Your task to perform on an android device: Clear the cart on amazon. Search for sony triple a on amazon, select the first entry, and add it to the cart. Image 0: 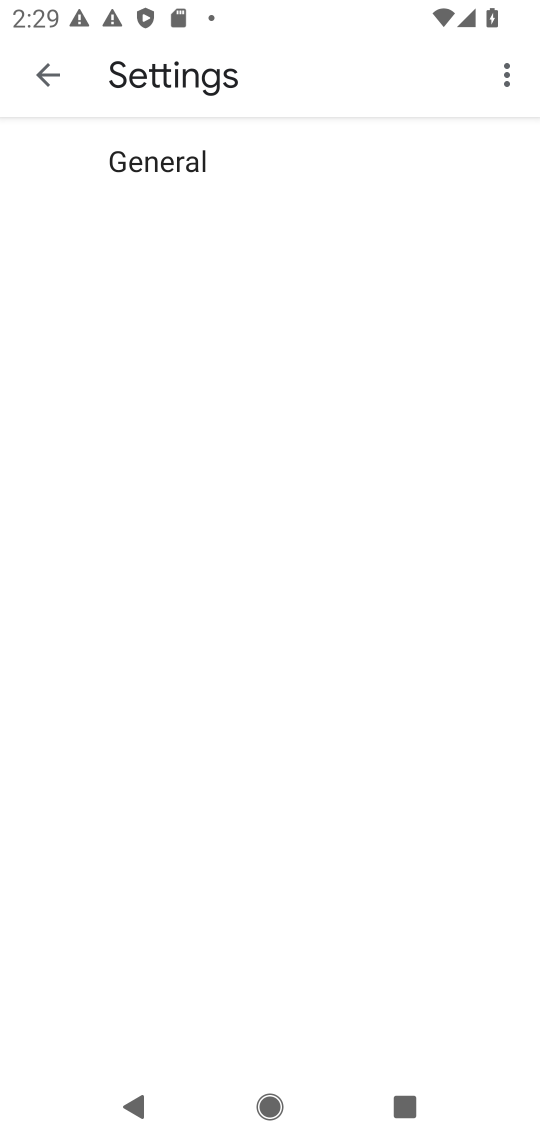
Step 0: press home button
Your task to perform on an android device: Clear the cart on amazon. Search for sony triple a on amazon, select the first entry, and add it to the cart. Image 1: 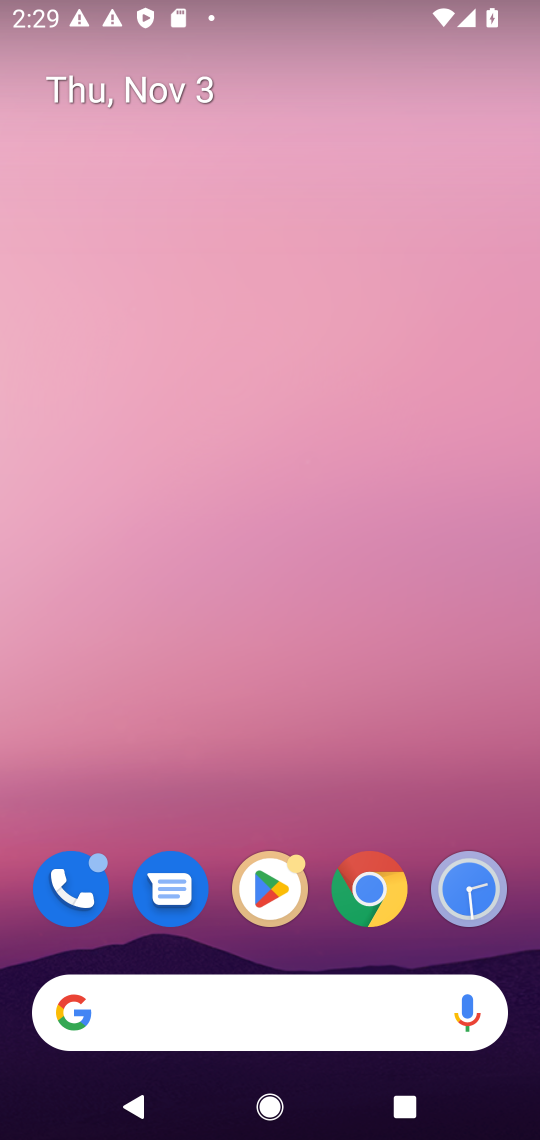
Step 1: click (354, 880)
Your task to perform on an android device: Clear the cart on amazon. Search for sony triple a on amazon, select the first entry, and add it to the cart. Image 2: 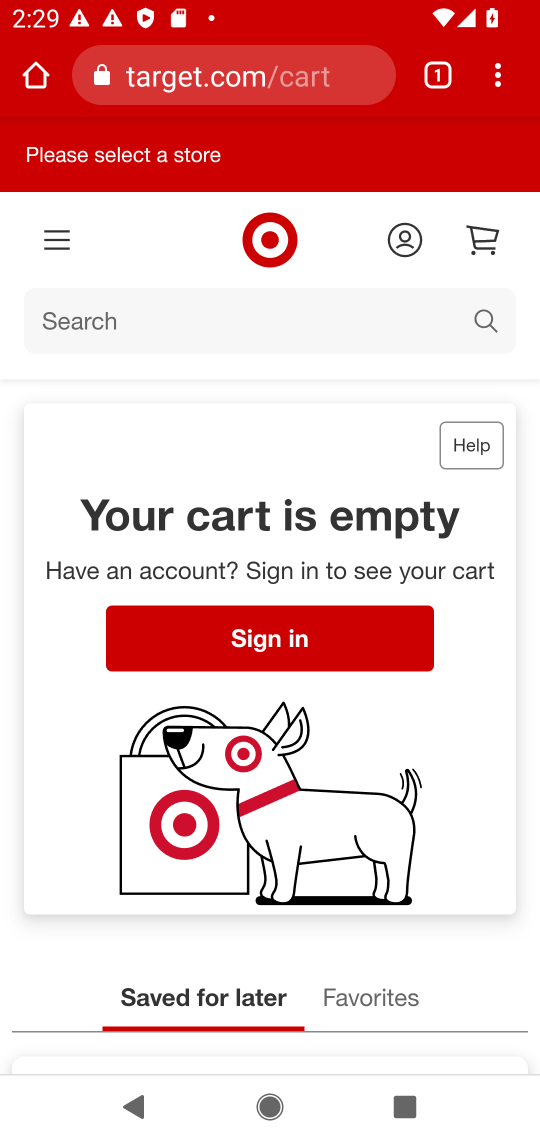
Step 2: click (436, 67)
Your task to perform on an android device: Clear the cart on amazon. Search for sony triple a on amazon, select the first entry, and add it to the cart. Image 3: 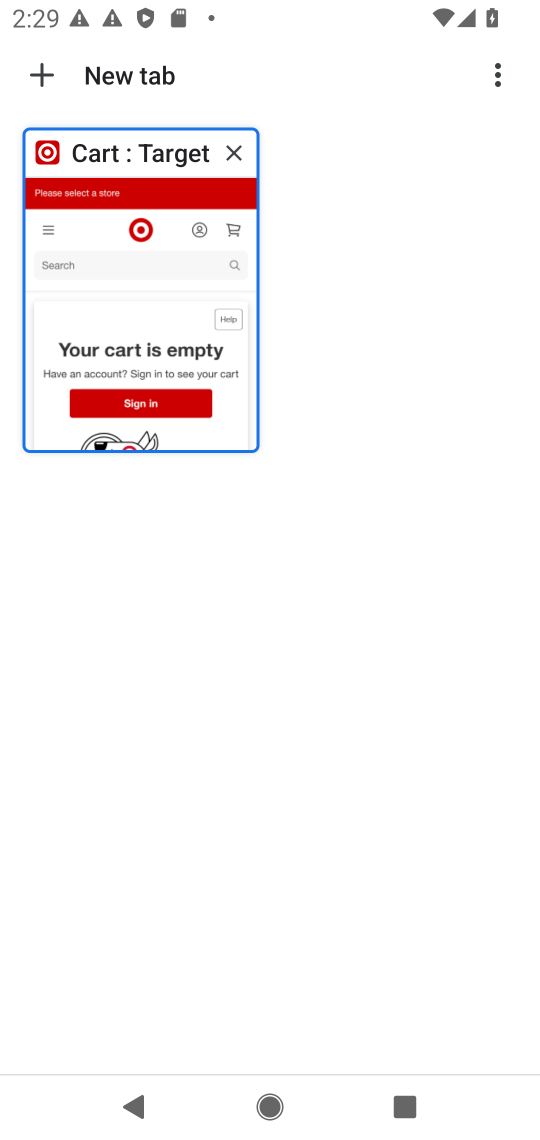
Step 3: click (38, 76)
Your task to perform on an android device: Clear the cart on amazon. Search for sony triple a on amazon, select the first entry, and add it to the cart. Image 4: 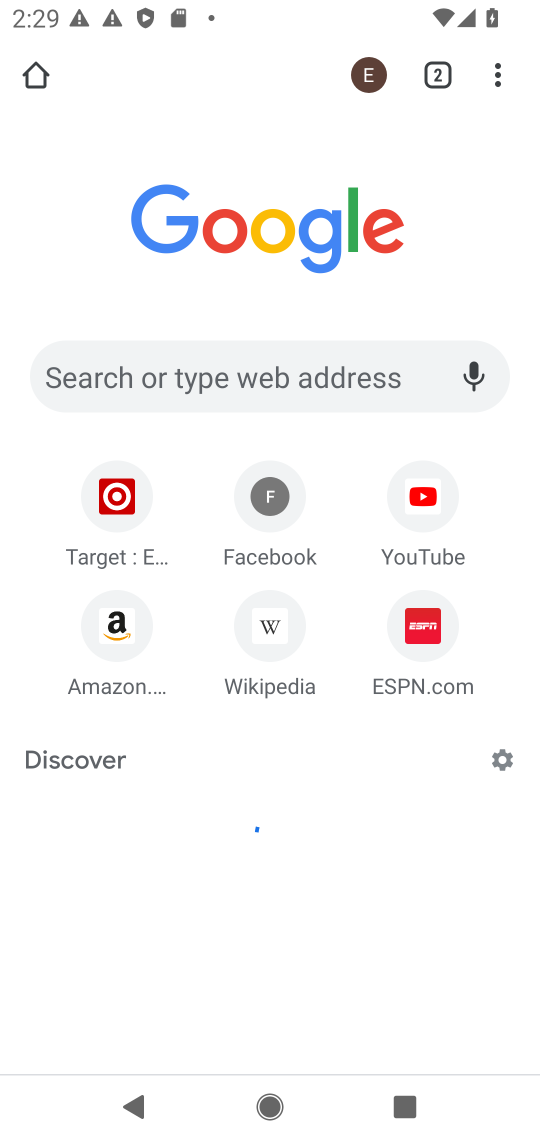
Step 4: click (227, 370)
Your task to perform on an android device: Clear the cart on amazon. Search for sony triple a on amazon, select the first entry, and add it to the cart. Image 5: 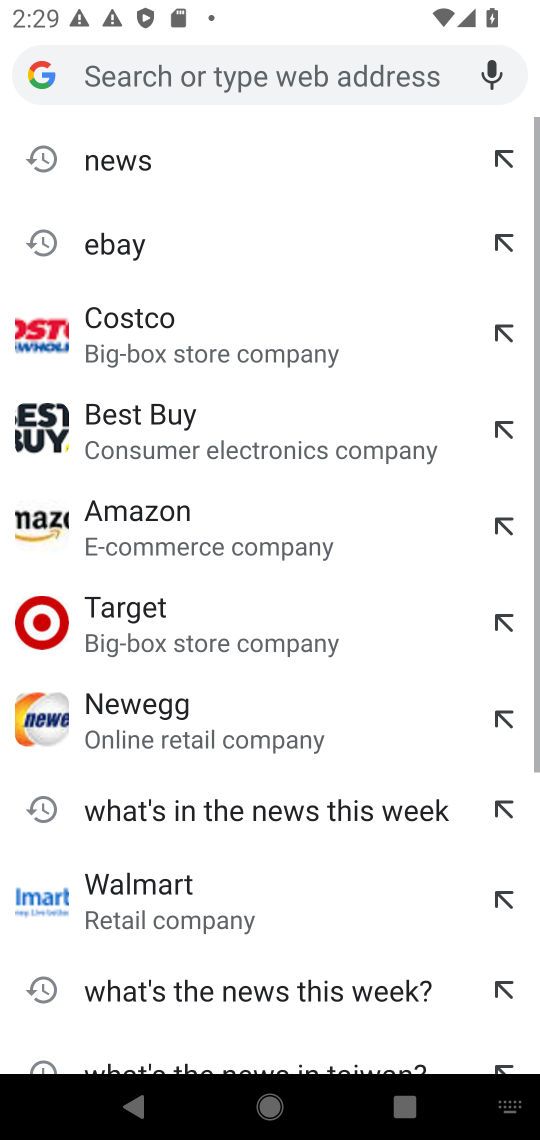
Step 5: type "amazon"
Your task to perform on an android device: Clear the cart on amazon. Search for sony triple a on amazon, select the first entry, and add it to the cart. Image 6: 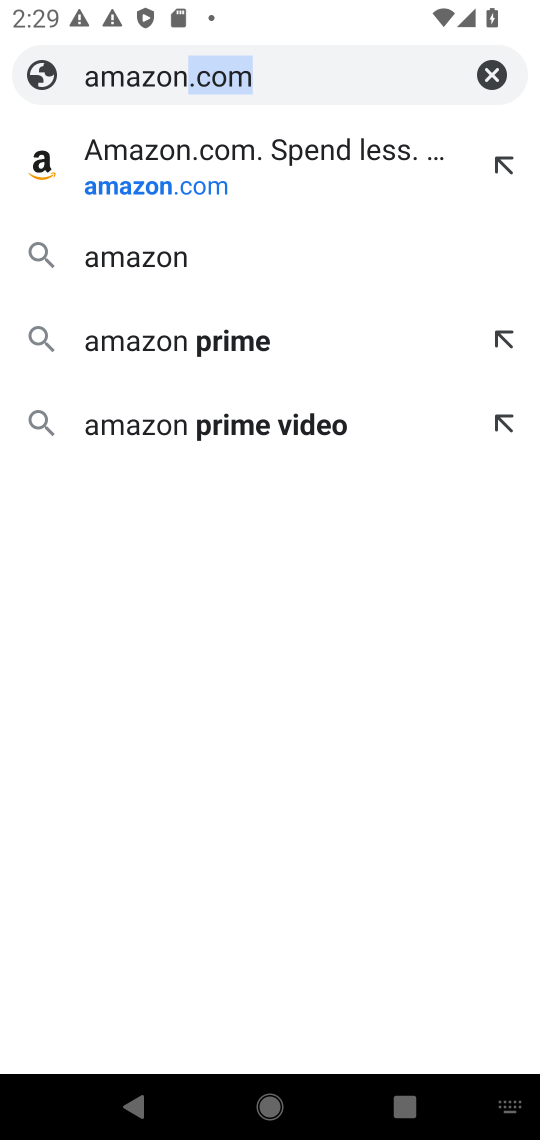
Step 6: click (355, 170)
Your task to perform on an android device: Clear the cart on amazon. Search for sony triple a on amazon, select the first entry, and add it to the cart. Image 7: 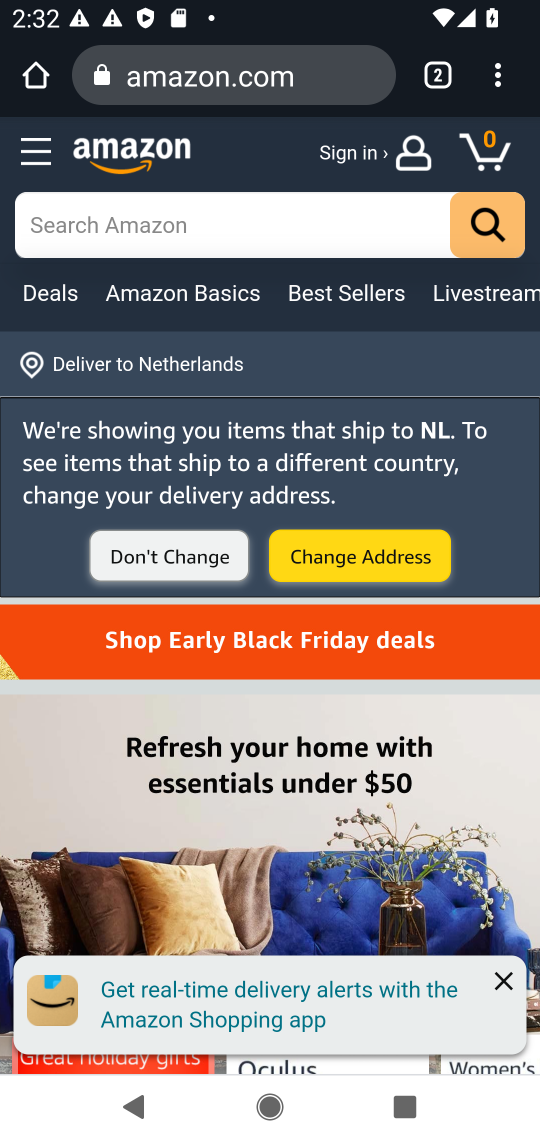
Step 7: click (493, 133)
Your task to perform on an android device: Clear the cart on amazon. Search for sony triple a on amazon, select the first entry, and add it to the cart. Image 8: 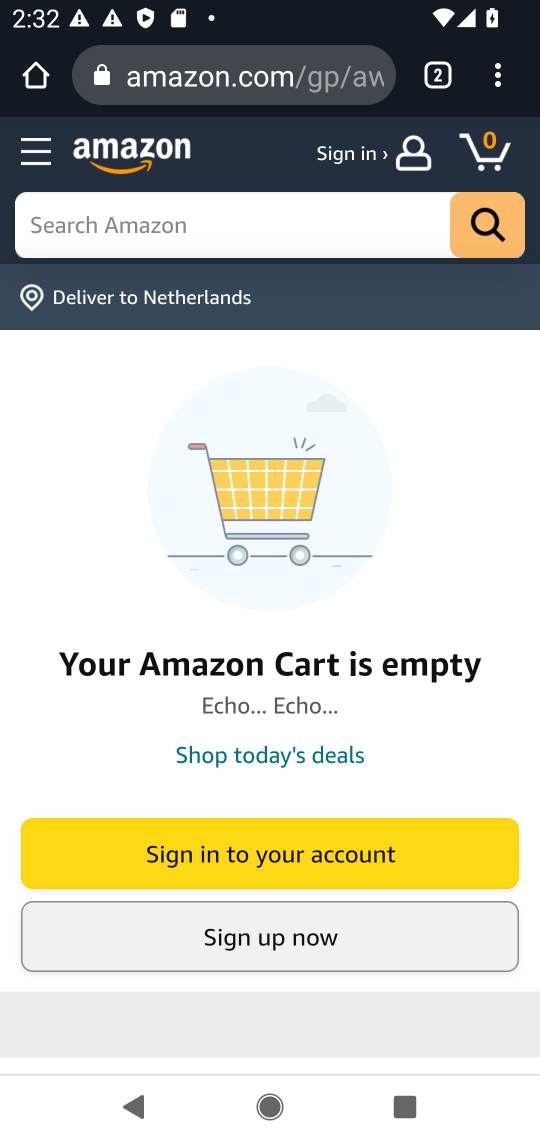
Step 8: click (493, 159)
Your task to perform on an android device: Clear the cart on amazon. Search for sony triple a on amazon, select the first entry, and add it to the cart. Image 9: 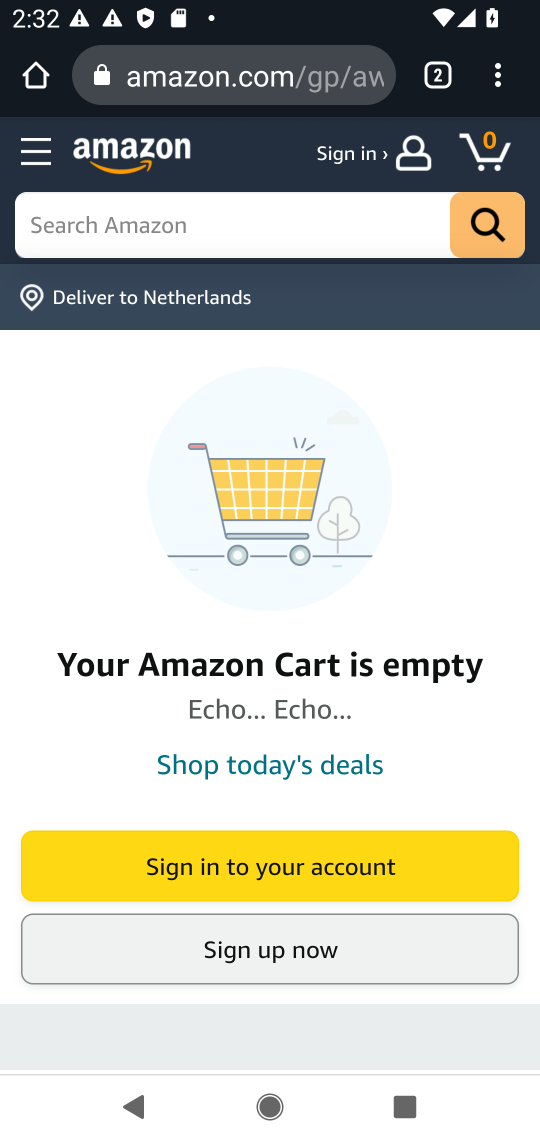
Step 9: click (499, 155)
Your task to perform on an android device: Clear the cart on amazon. Search for sony triple a on amazon, select the first entry, and add it to the cart. Image 10: 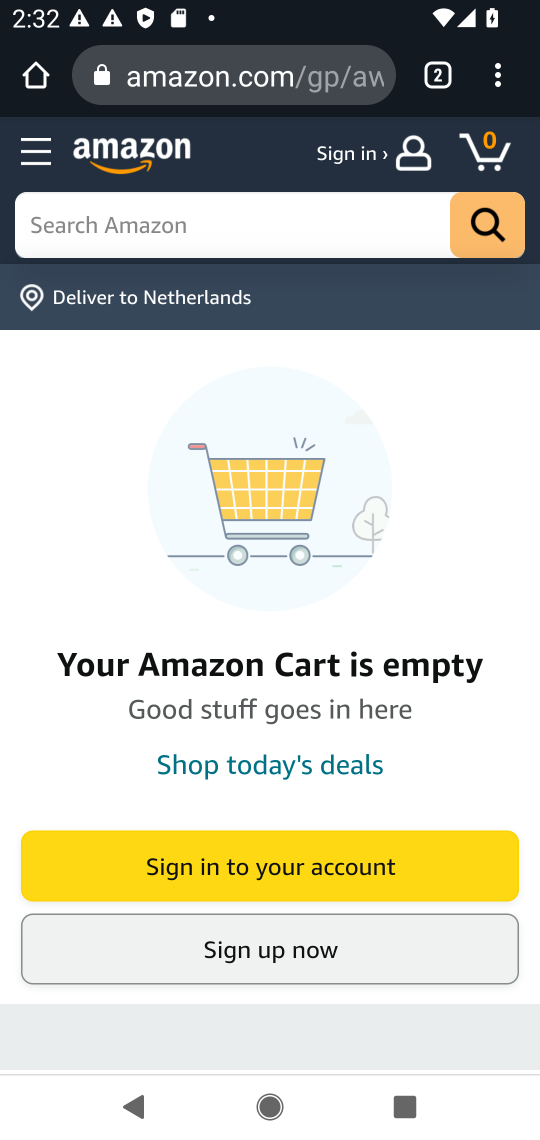
Step 10: click (260, 235)
Your task to perform on an android device: Clear the cart on amazon. Search for sony triple a on amazon, select the first entry, and add it to the cart. Image 11: 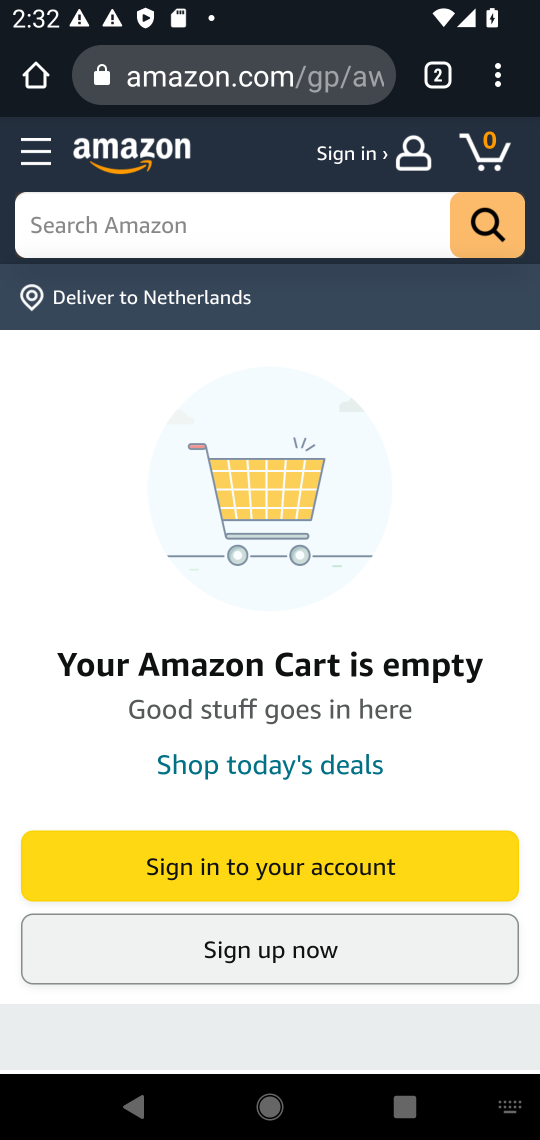
Step 11: click (167, 233)
Your task to perform on an android device: Clear the cart on amazon. Search for sony triple a on amazon, select the first entry, and add it to the cart. Image 12: 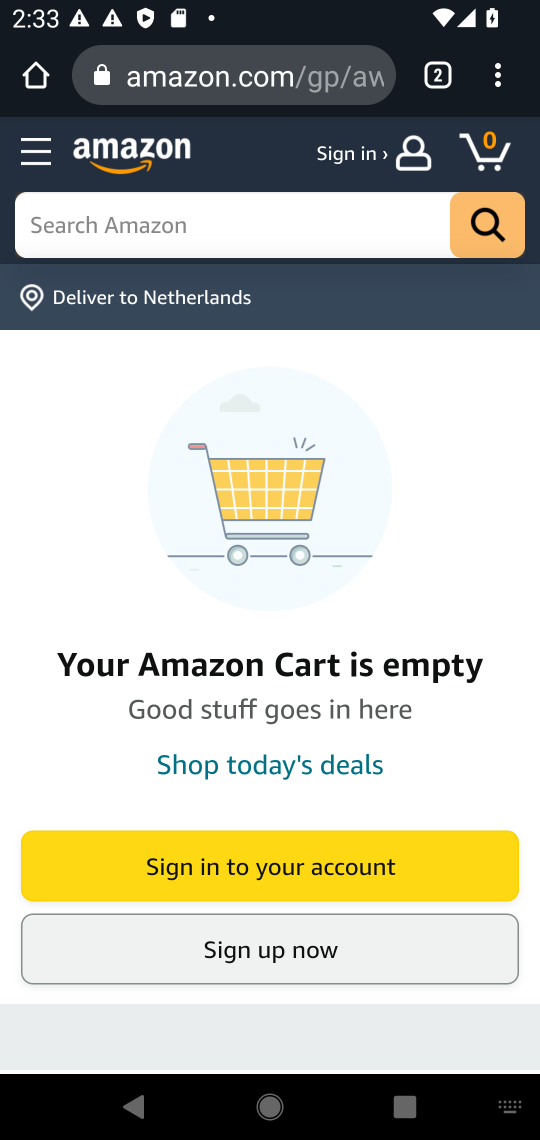
Step 12: type "ony triple "
Your task to perform on an android device: Clear the cart on amazon. Search for sony triple a on amazon, select the first entry, and add it to the cart. Image 13: 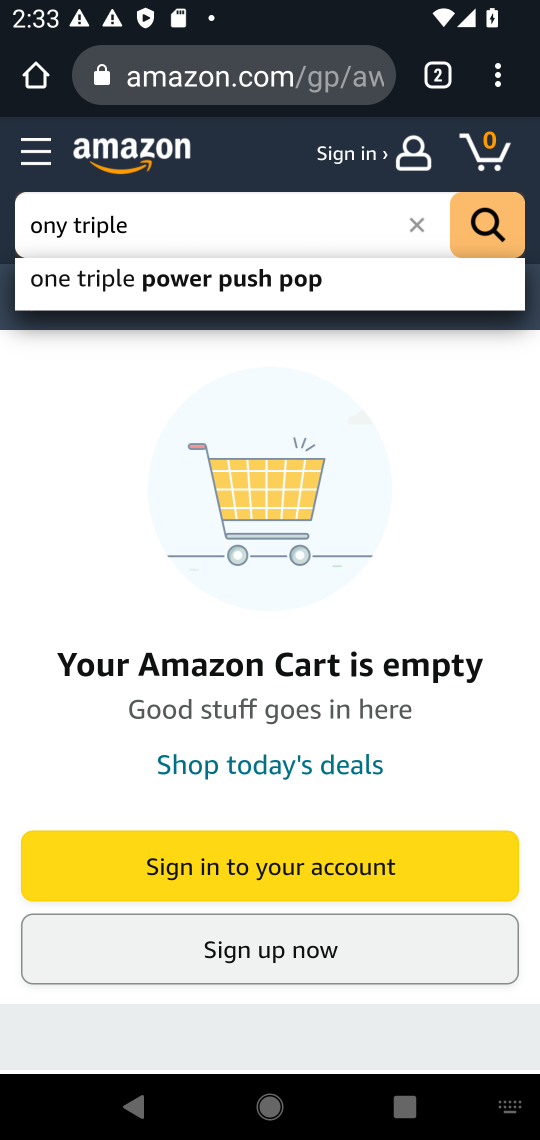
Step 13: click (237, 274)
Your task to perform on an android device: Clear the cart on amazon. Search for sony triple a on amazon, select the first entry, and add it to the cart. Image 14: 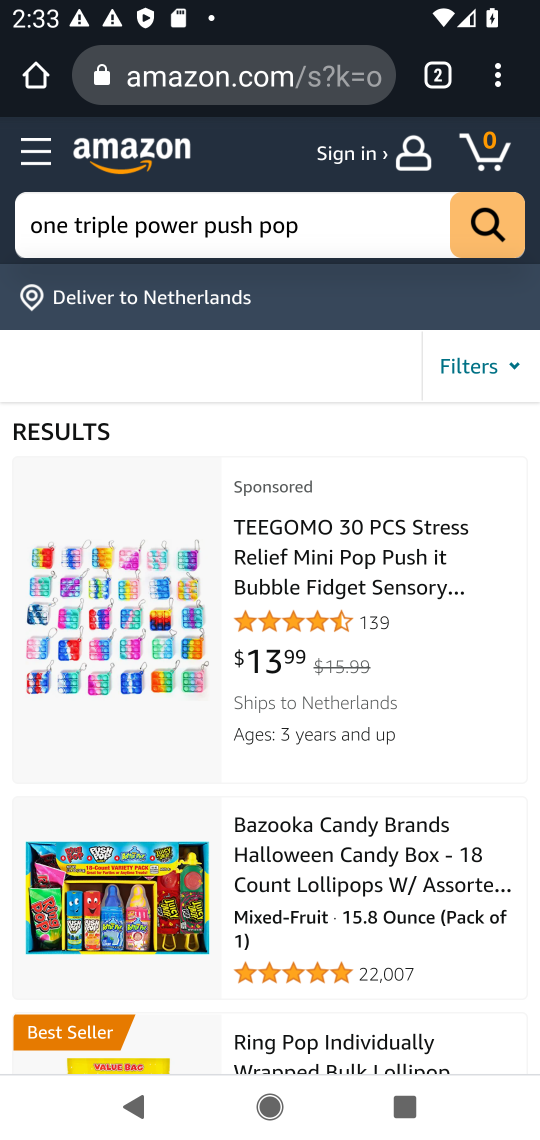
Step 14: click (360, 214)
Your task to perform on an android device: Clear the cart on amazon. Search for sony triple a on amazon, select the first entry, and add it to the cart. Image 15: 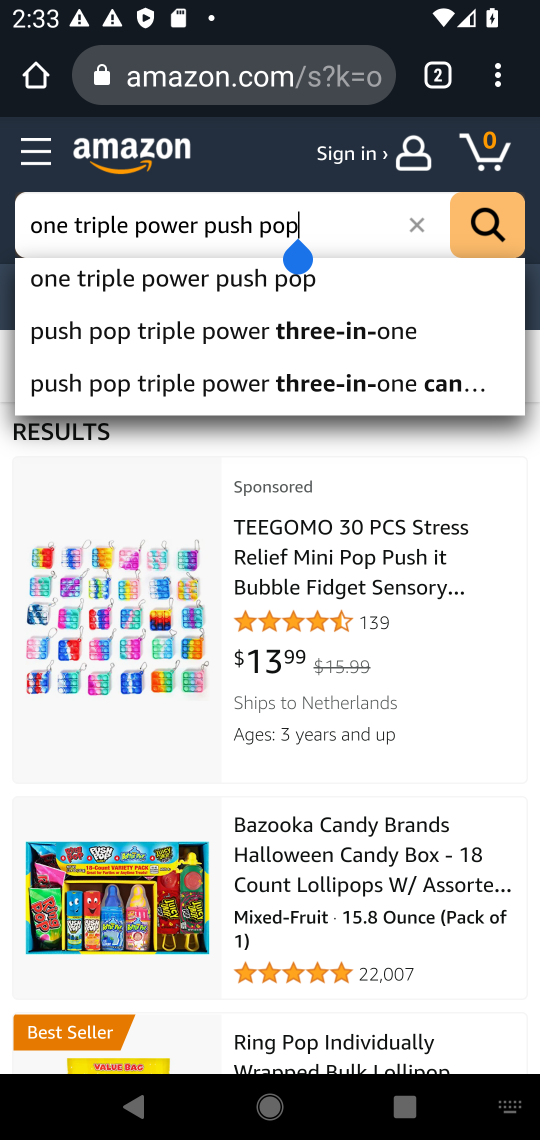
Step 15: click (434, 223)
Your task to perform on an android device: Clear the cart on amazon. Search for sony triple a on amazon, select the first entry, and add it to the cart. Image 16: 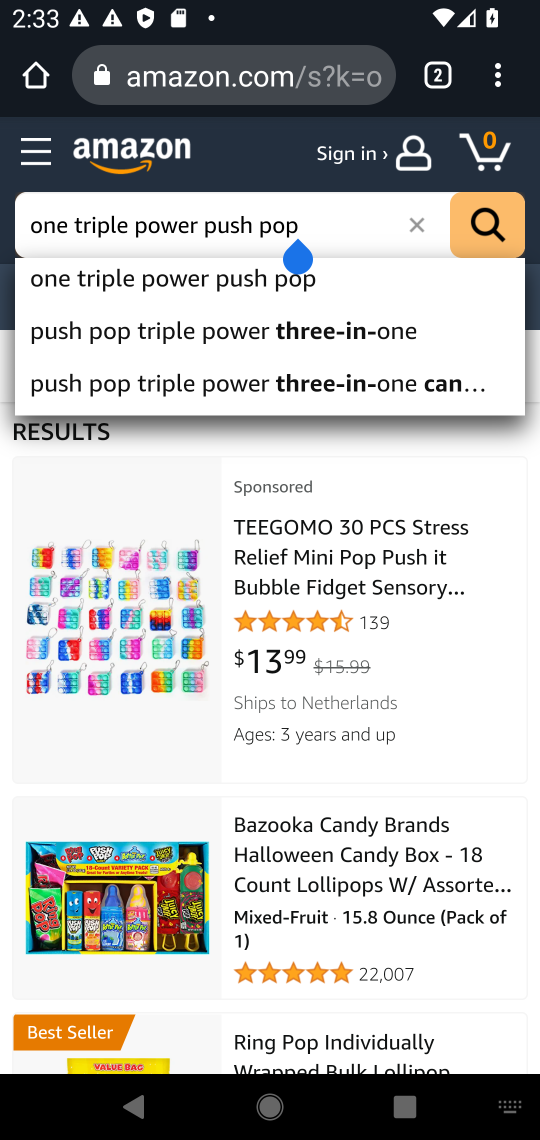
Step 16: click (418, 217)
Your task to perform on an android device: Clear the cart on amazon. Search for sony triple a on amazon, select the first entry, and add it to the cart. Image 17: 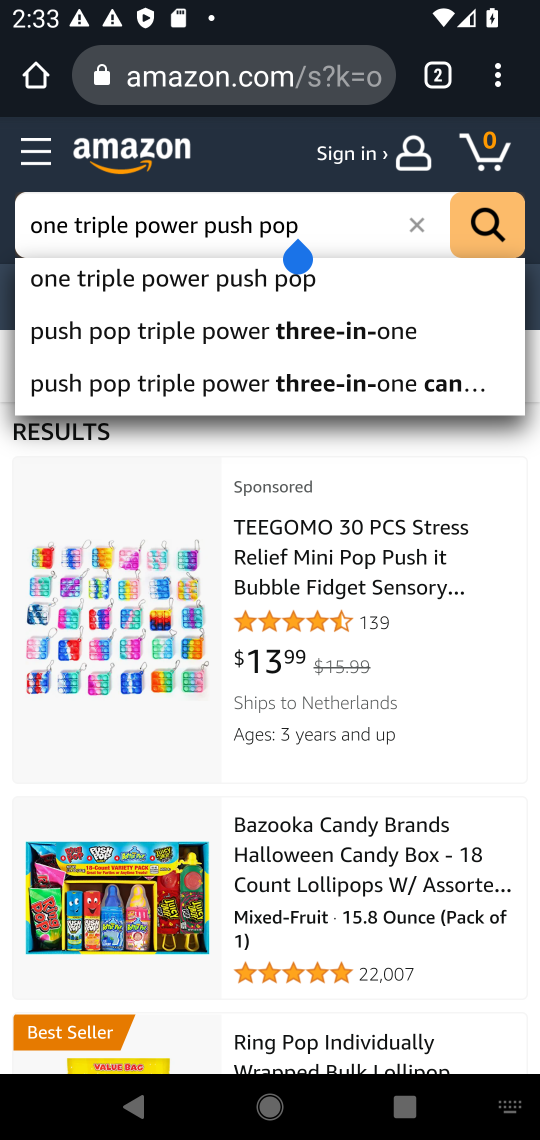
Step 17: click (413, 227)
Your task to perform on an android device: Clear the cart on amazon. Search for sony triple a on amazon, select the first entry, and add it to the cart. Image 18: 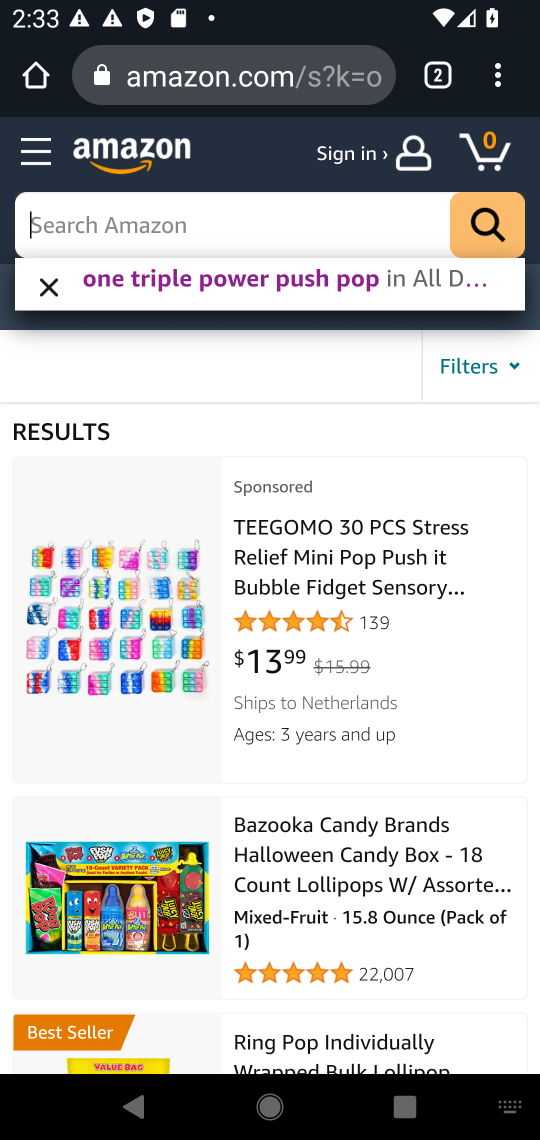
Step 18: type "sony triple"
Your task to perform on an android device: Clear the cart on amazon. Search for sony triple a on amazon, select the first entry, and add it to the cart. Image 19: 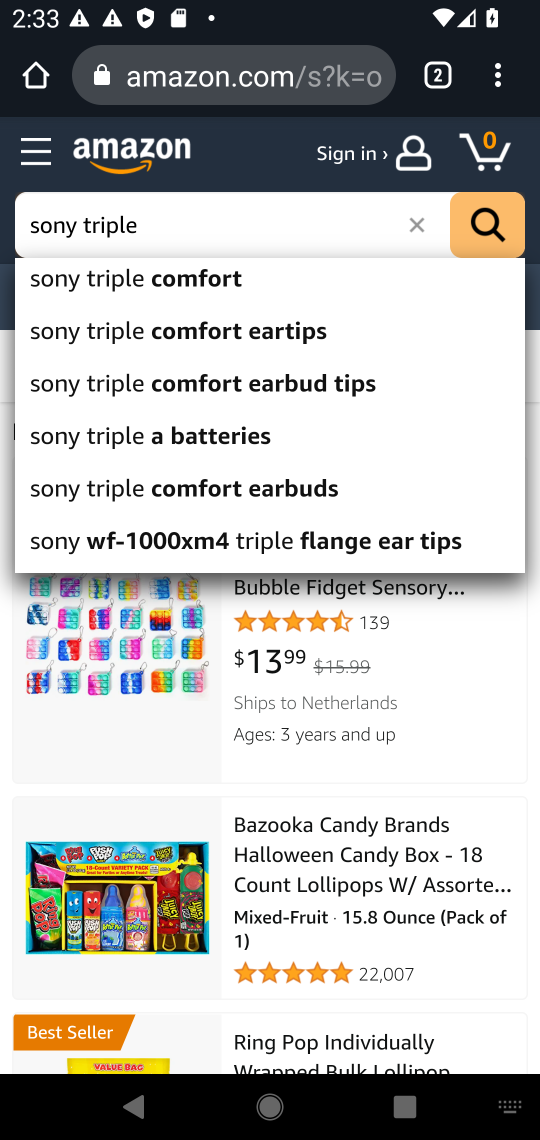
Step 19: type " a"
Your task to perform on an android device: Clear the cart on amazon. Search for sony triple a on amazon, select the first entry, and add it to the cart. Image 20: 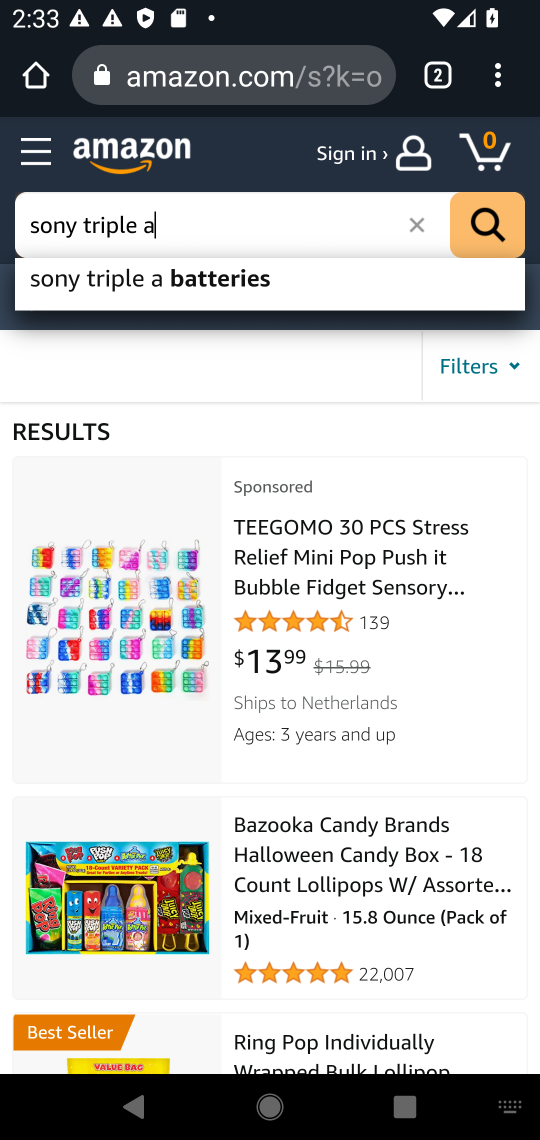
Step 20: click (275, 287)
Your task to perform on an android device: Clear the cart on amazon. Search for sony triple a on amazon, select the first entry, and add it to the cart. Image 21: 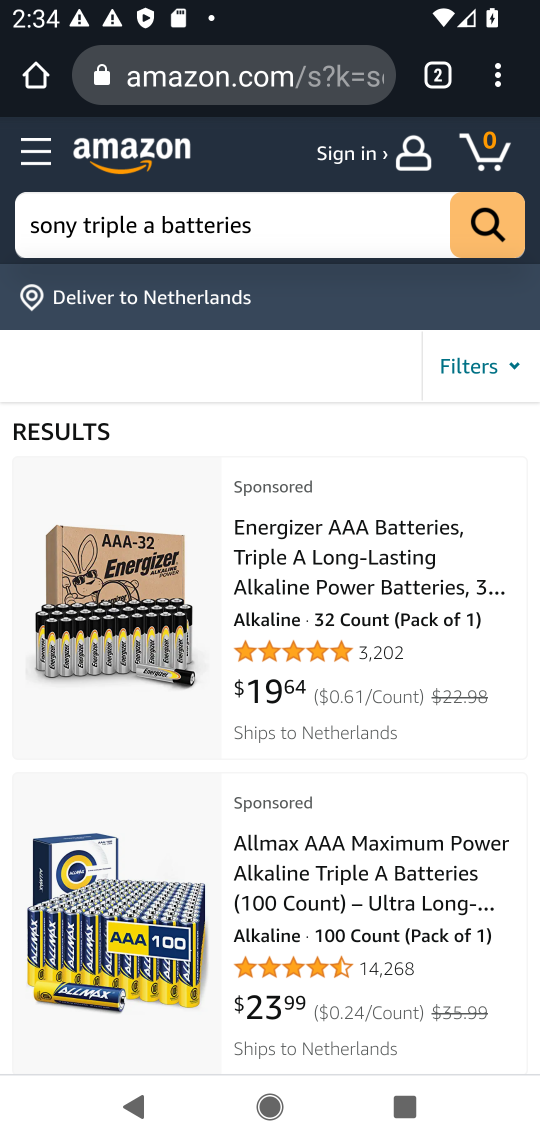
Step 21: drag from (368, 871) to (419, 564)
Your task to perform on an android device: Clear the cart on amazon. Search for sony triple a on amazon, select the first entry, and add it to the cart. Image 22: 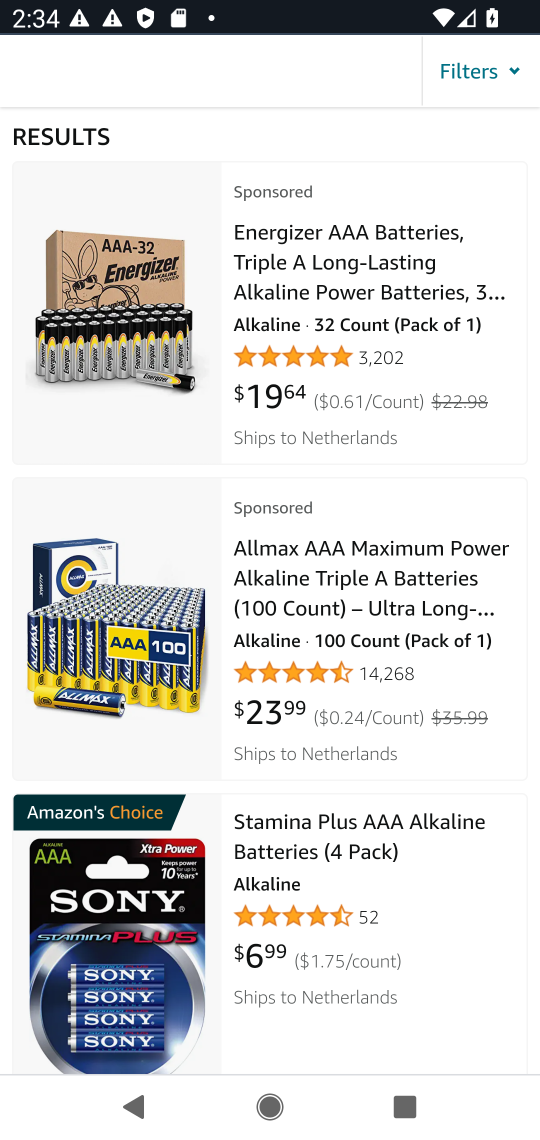
Step 22: click (322, 287)
Your task to perform on an android device: Clear the cart on amazon. Search for sony triple a on amazon, select the first entry, and add it to the cart. Image 23: 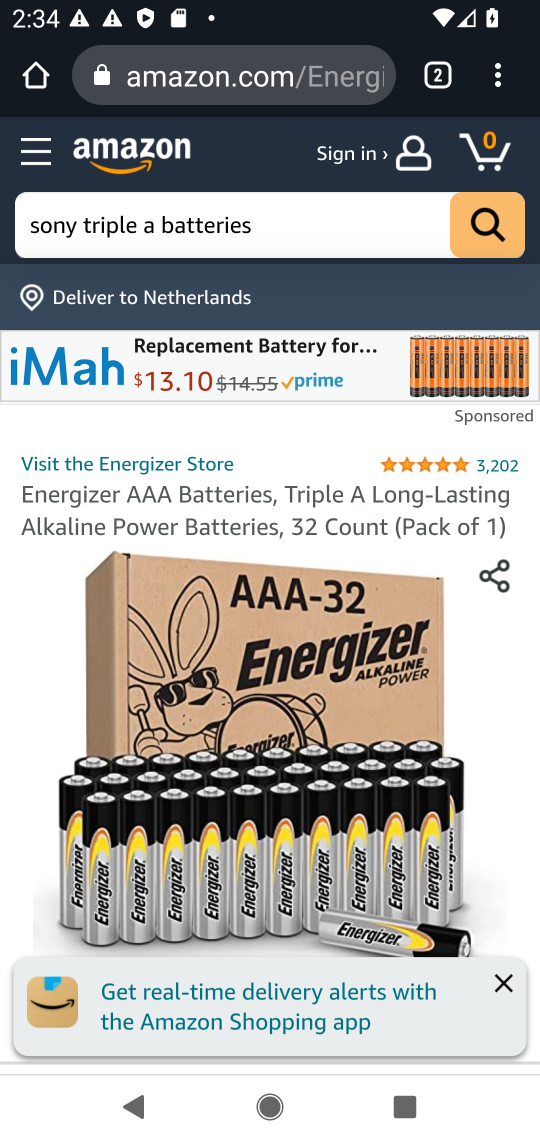
Step 23: drag from (328, 912) to (463, 403)
Your task to perform on an android device: Clear the cart on amazon. Search for sony triple a on amazon, select the first entry, and add it to the cart. Image 24: 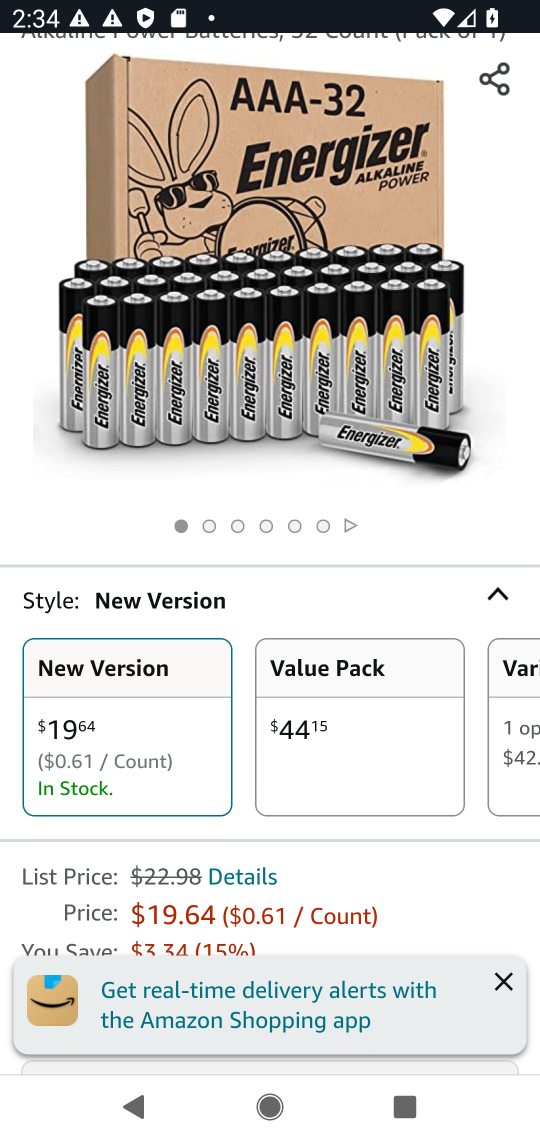
Step 24: click (503, 969)
Your task to perform on an android device: Clear the cart on amazon. Search for sony triple a on amazon, select the first entry, and add it to the cart. Image 25: 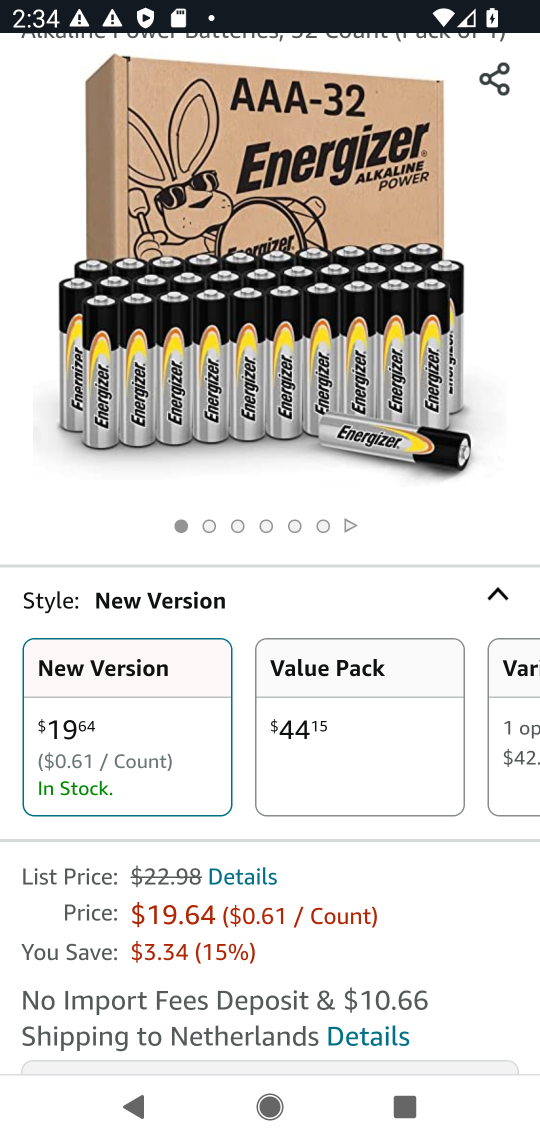
Step 25: drag from (216, 990) to (348, 296)
Your task to perform on an android device: Clear the cart on amazon. Search for sony triple a on amazon, select the first entry, and add it to the cart. Image 26: 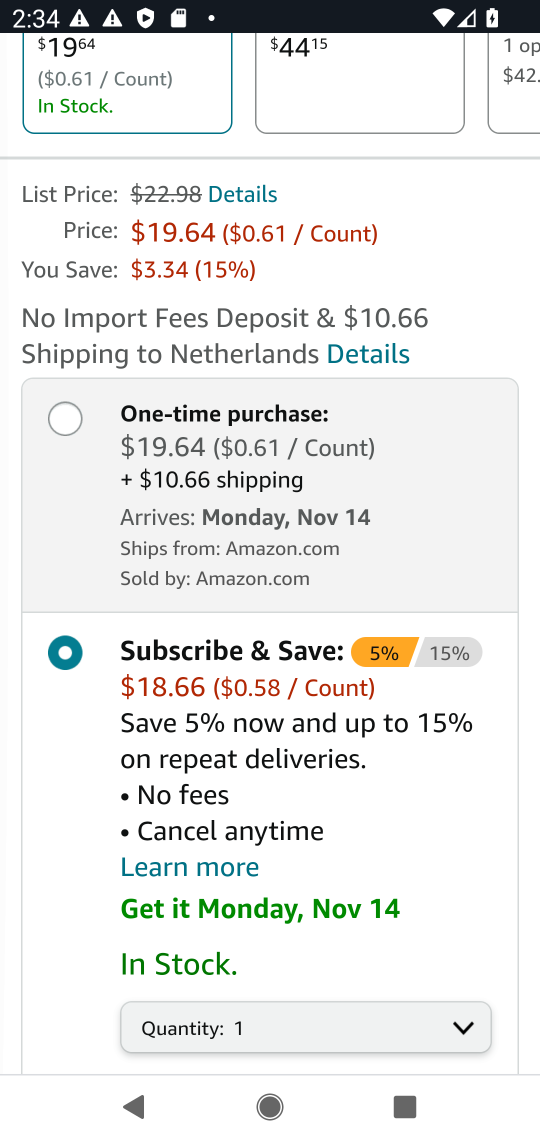
Step 26: drag from (384, 909) to (422, 118)
Your task to perform on an android device: Clear the cart on amazon. Search for sony triple a on amazon, select the first entry, and add it to the cart. Image 27: 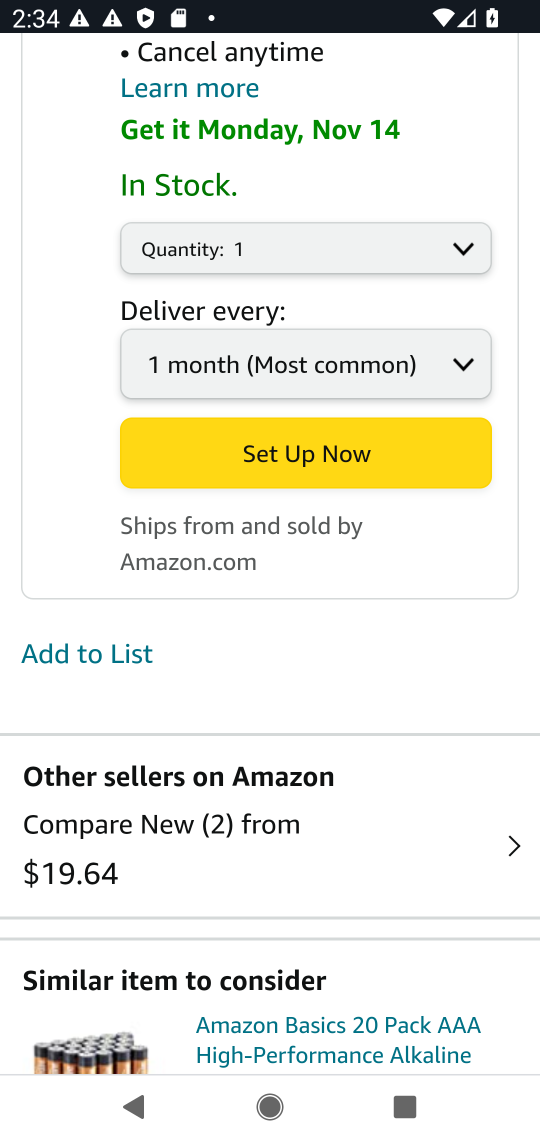
Step 27: drag from (337, 759) to (432, 1134)
Your task to perform on an android device: Clear the cart on amazon. Search for sony triple a on amazon, select the first entry, and add it to the cart. Image 28: 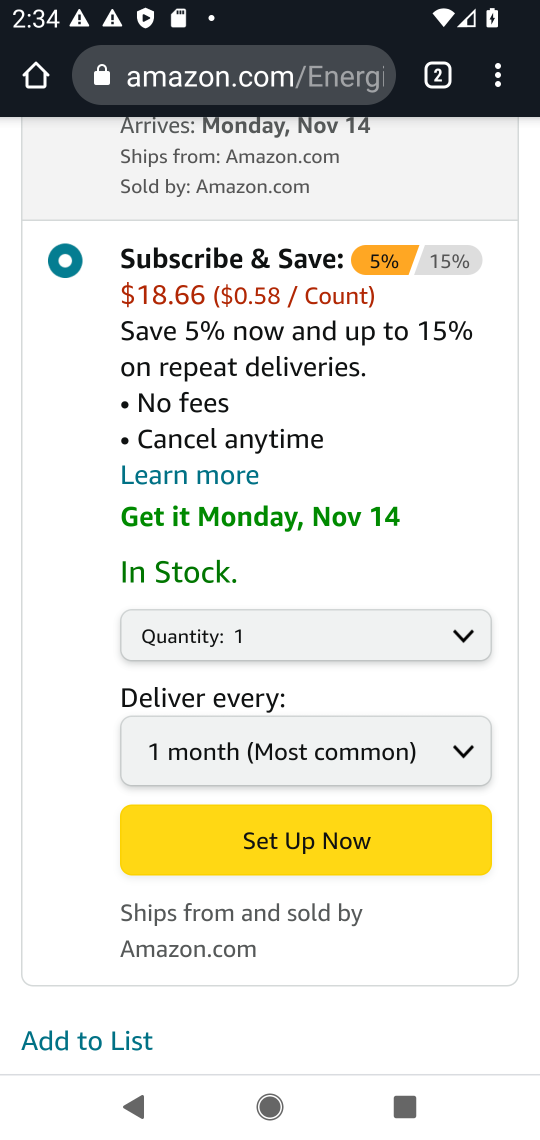
Step 28: drag from (372, 367) to (362, 1091)
Your task to perform on an android device: Clear the cart on amazon. Search for sony triple a on amazon, select the first entry, and add it to the cart. Image 29: 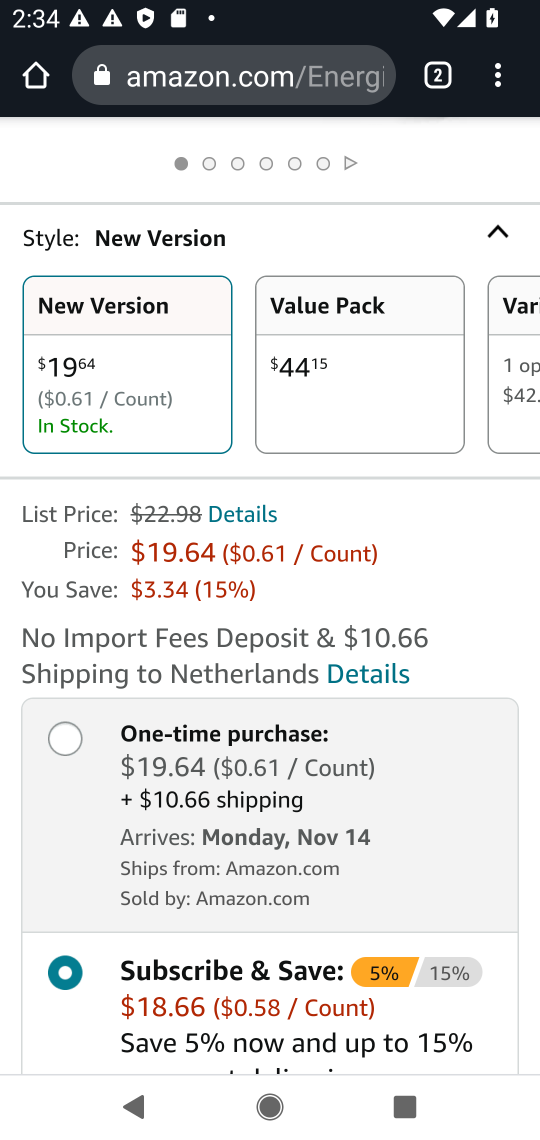
Step 29: click (51, 719)
Your task to perform on an android device: Clear the cart on amazon. Search for sony triple a on amazon, select the first entry, and add it to the cart. Image 30: 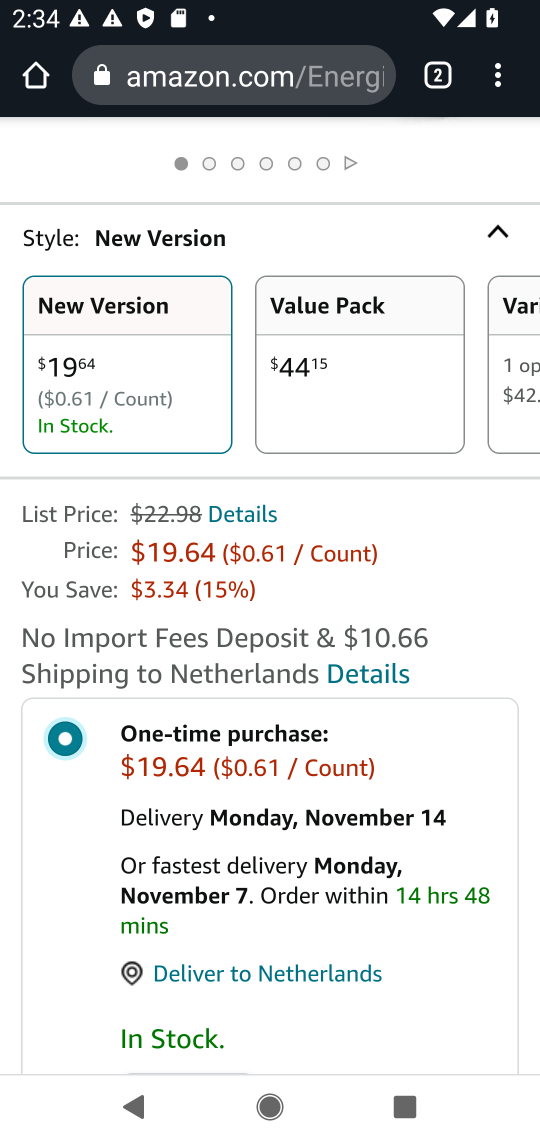
Step 30: drag from (276, 952) to (397, 212)
Your task to perform on an android device: Clear the cart on amazon. Search for sony triple a on amazon, select the first entry, and add it to the cart. Image 31: 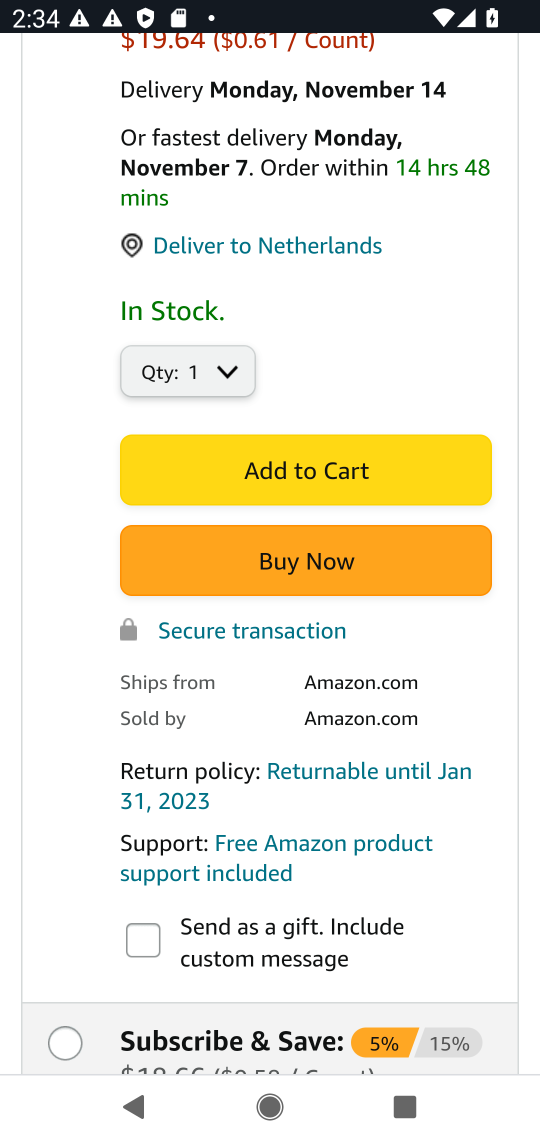
Step 31: click (298, 457)
Your task to perform on an android device: Clear the cart on amazon. Search for sony triple a on amazon, select the first entry, and add it to the cart. Image 32: 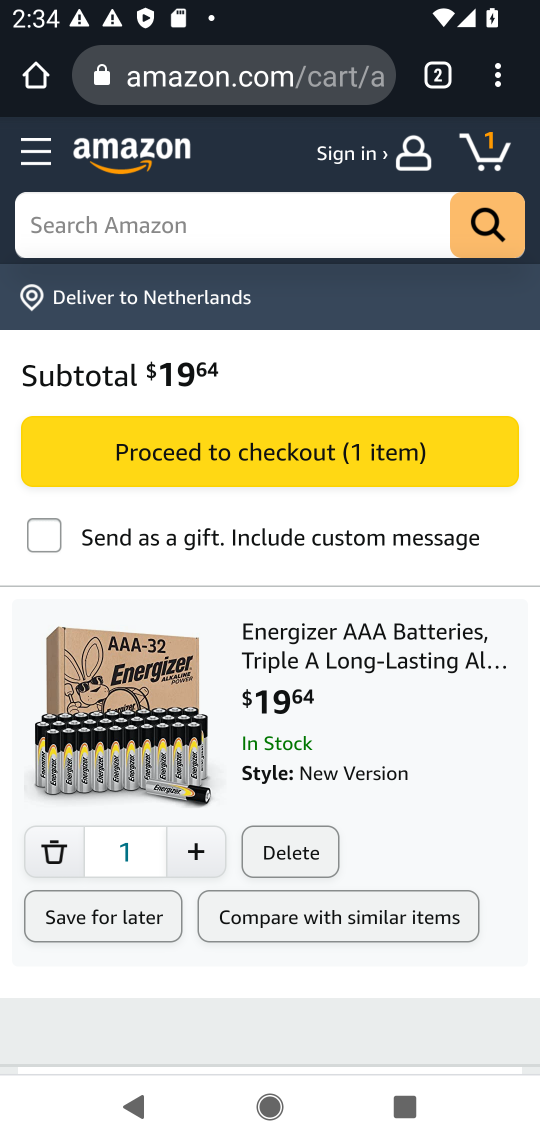
Step 32: task complete